Your task to perform on an android device: install app "LiveIn - Share Your Moment" Image 0: 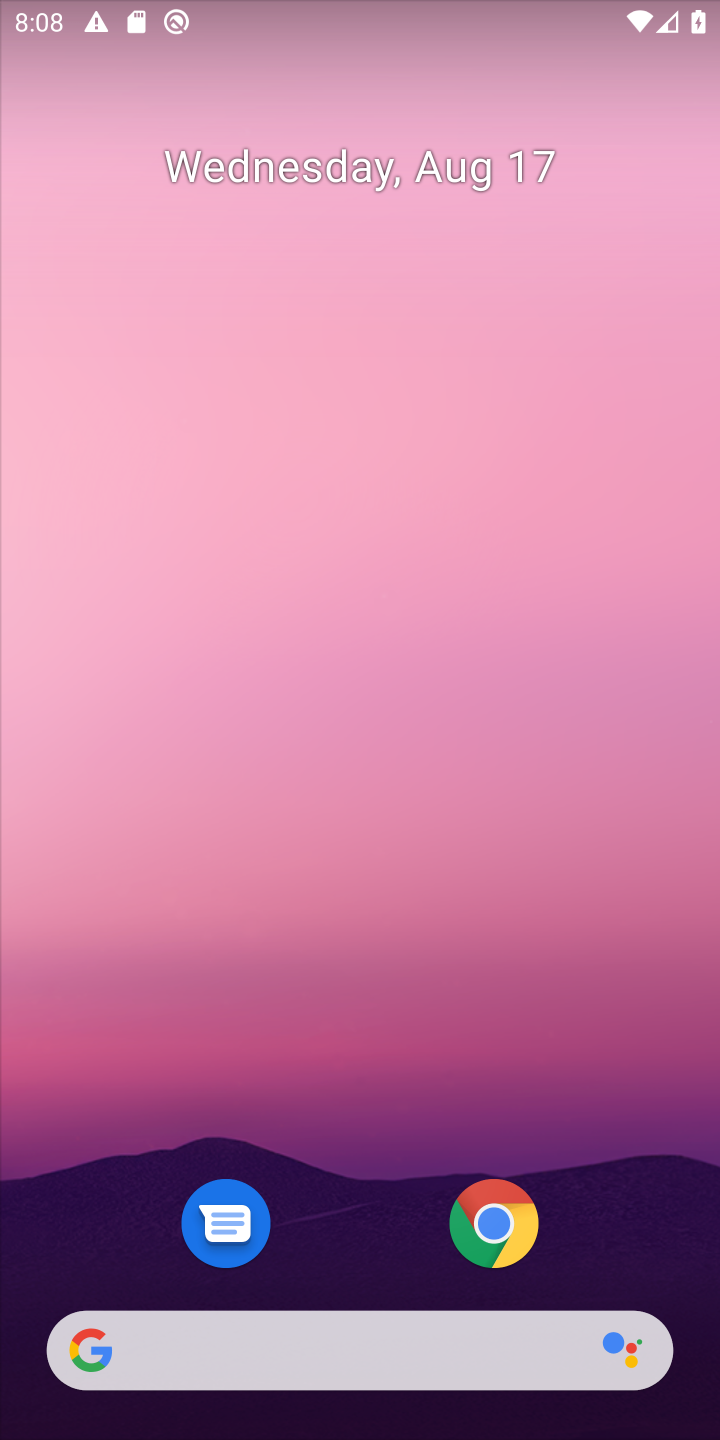
Step 0: click (312, 29)
Your task to perform on an android device: install app "LiveIn - Share Your Moment" Image 1: 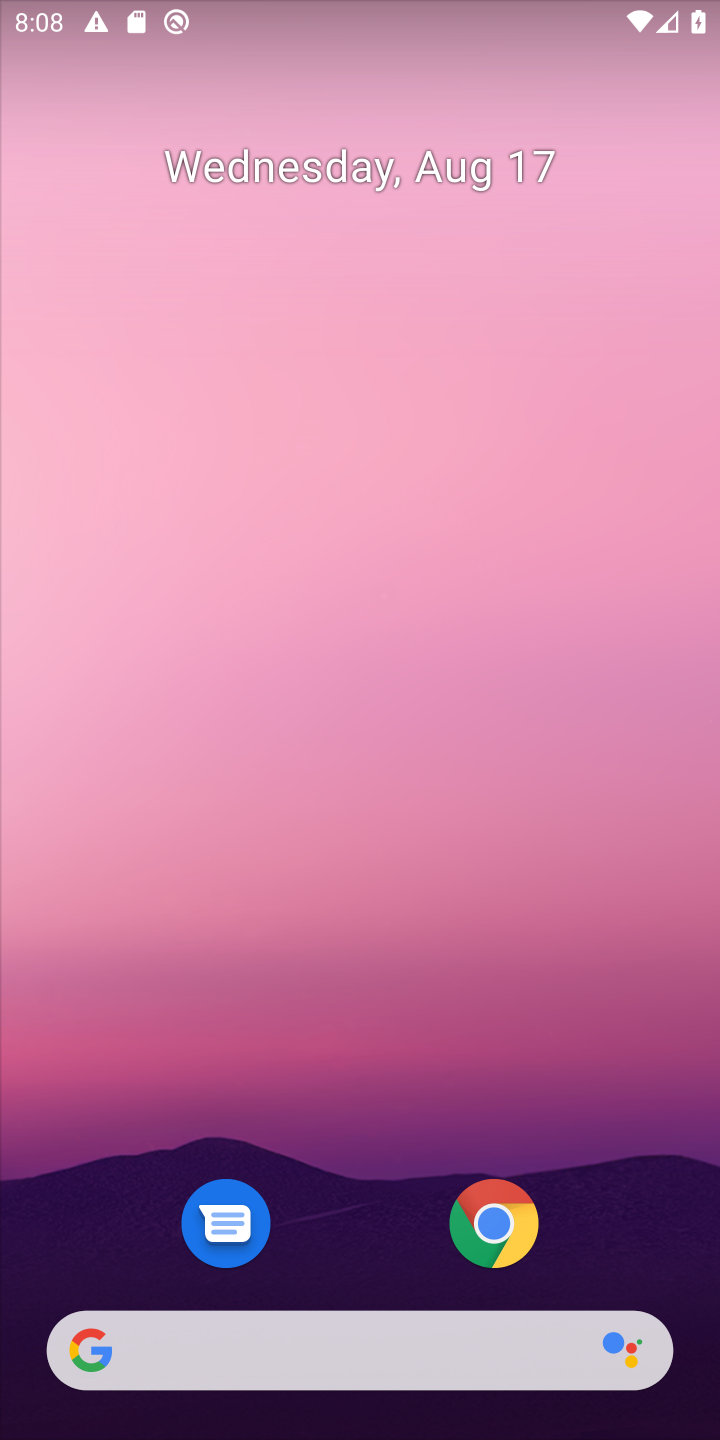
Step 1: click (366, 291)
Your task to perform on an android device: install app "LiveIn - Share Your Moment" Image 2: 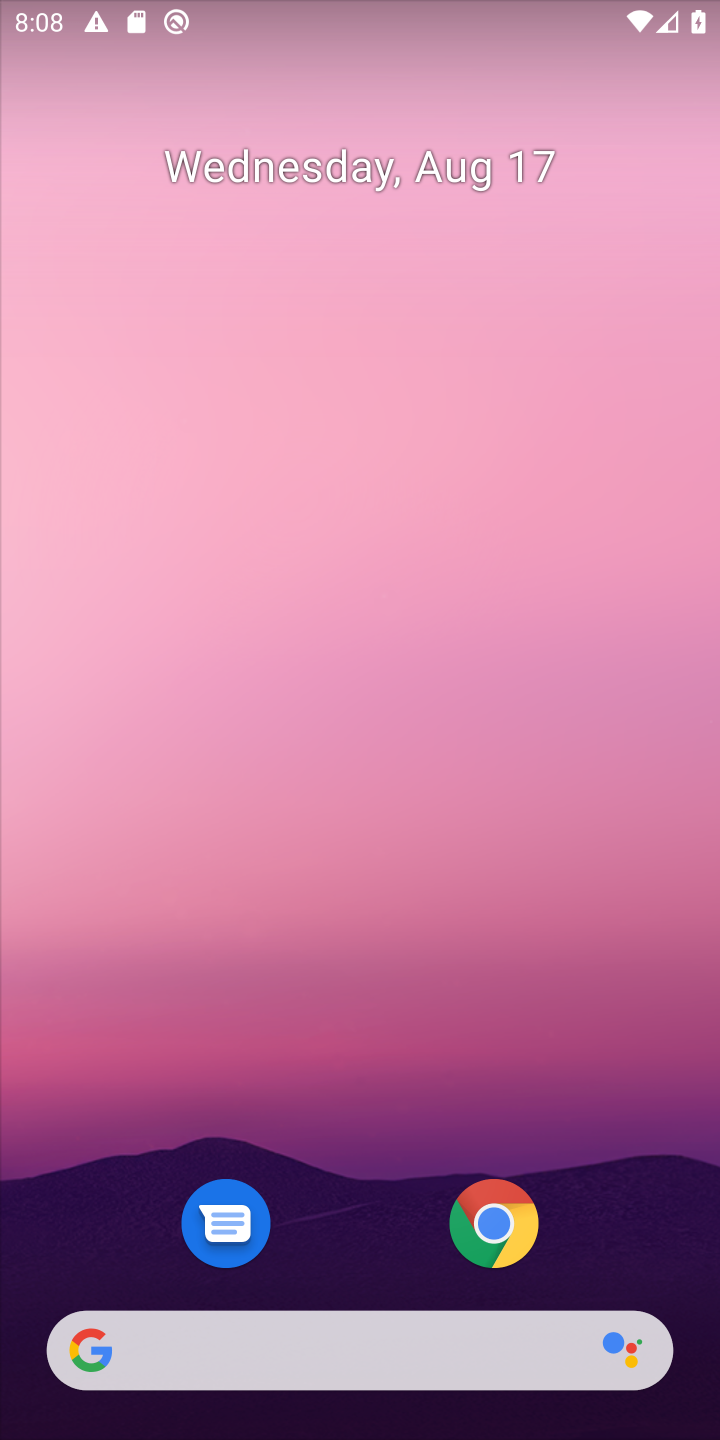
Step 2: click (310, 143)
Your task to perform on an android device: install app "LiveIn - Share Your Moment" Image 3: 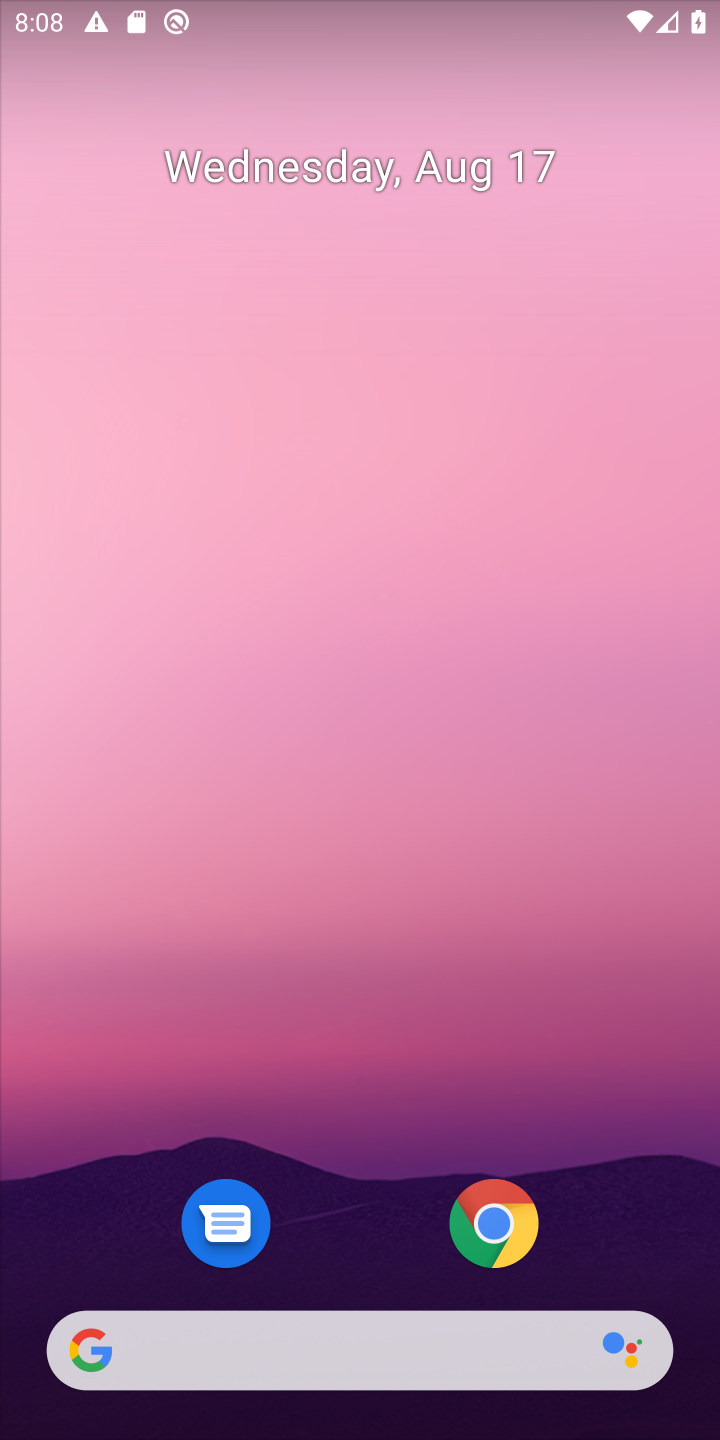
Step 3: drag from (398, 1264) to (408, 236)
Your task to perform on an android device: install app "LiveIn - Share Your Moment" Image 4: 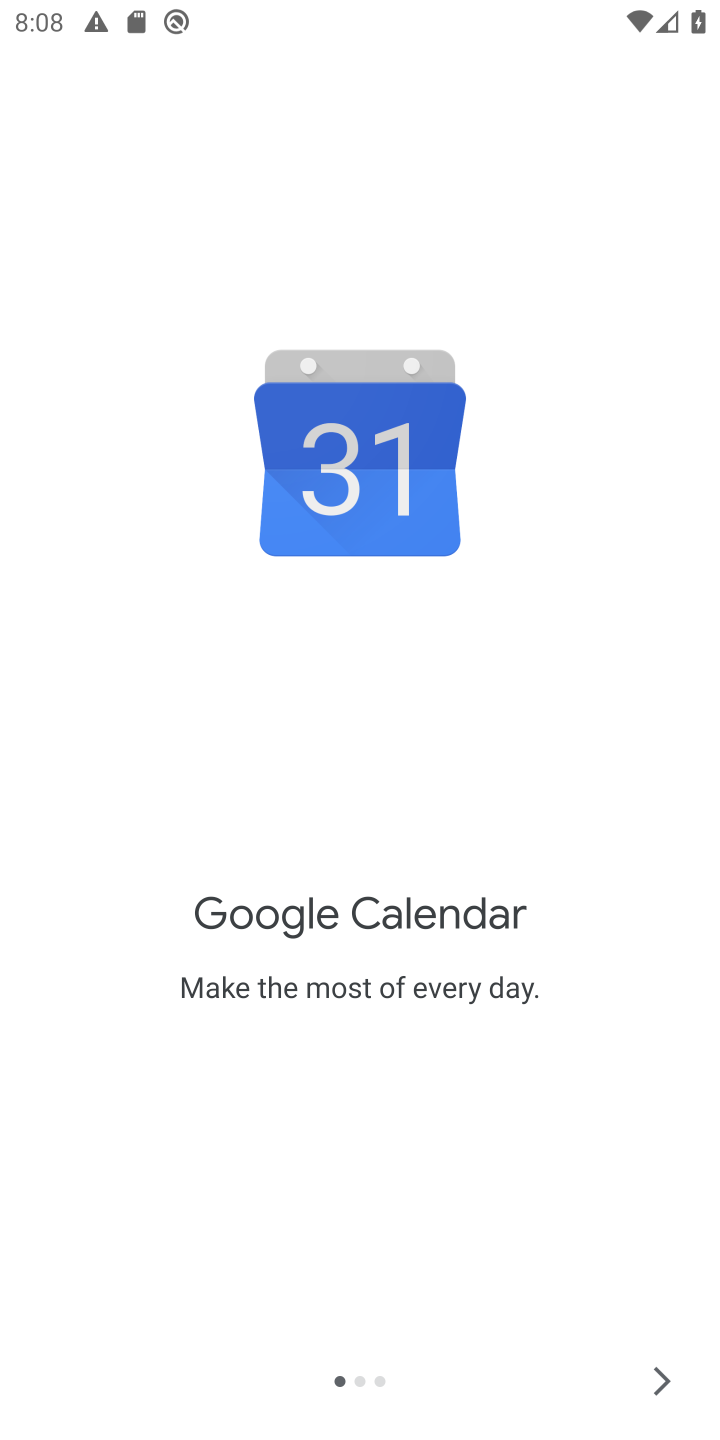
Step 4: press home button
Your task to perform on an android device: install app "LiveIn - Share Your Moment" Image 5: 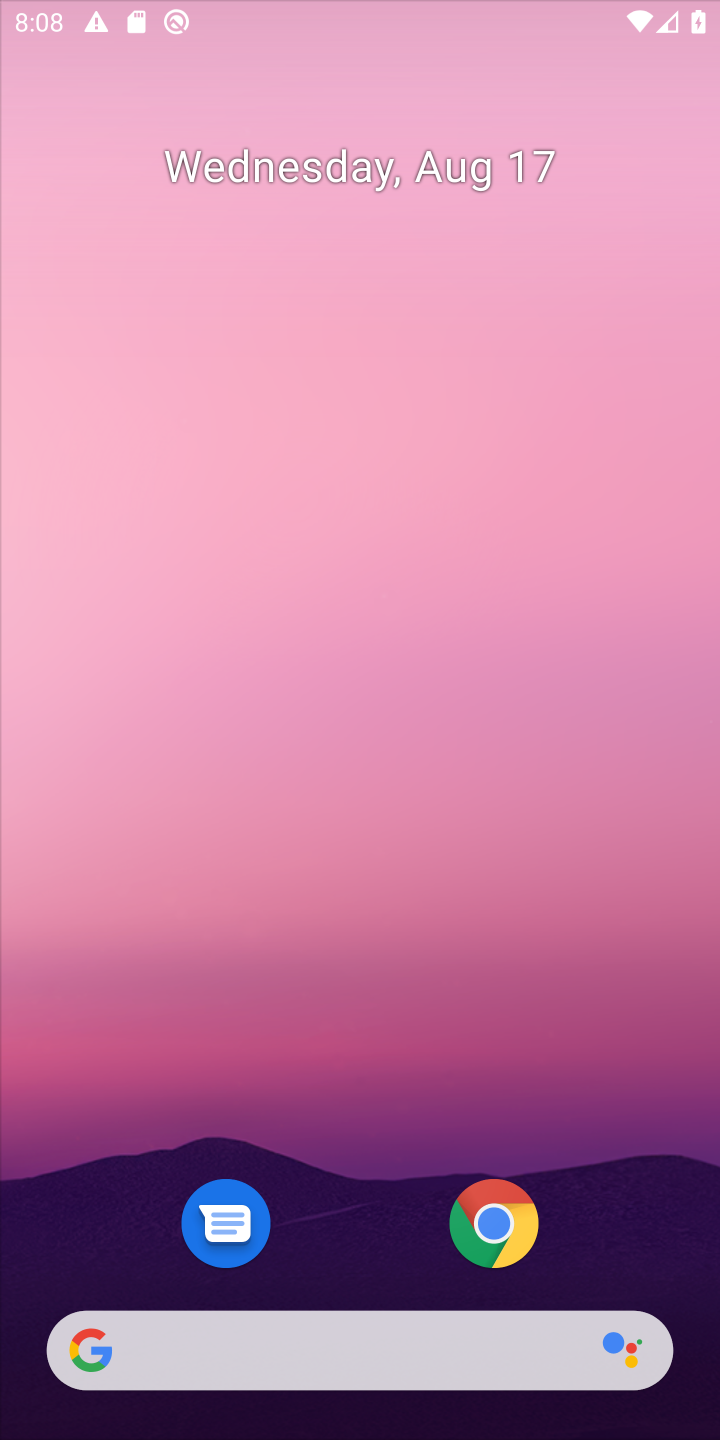
Step 5: click (287, 139)
Your task to perform on an android device: install app "LiveIn - Share Your Moment" Image 6: 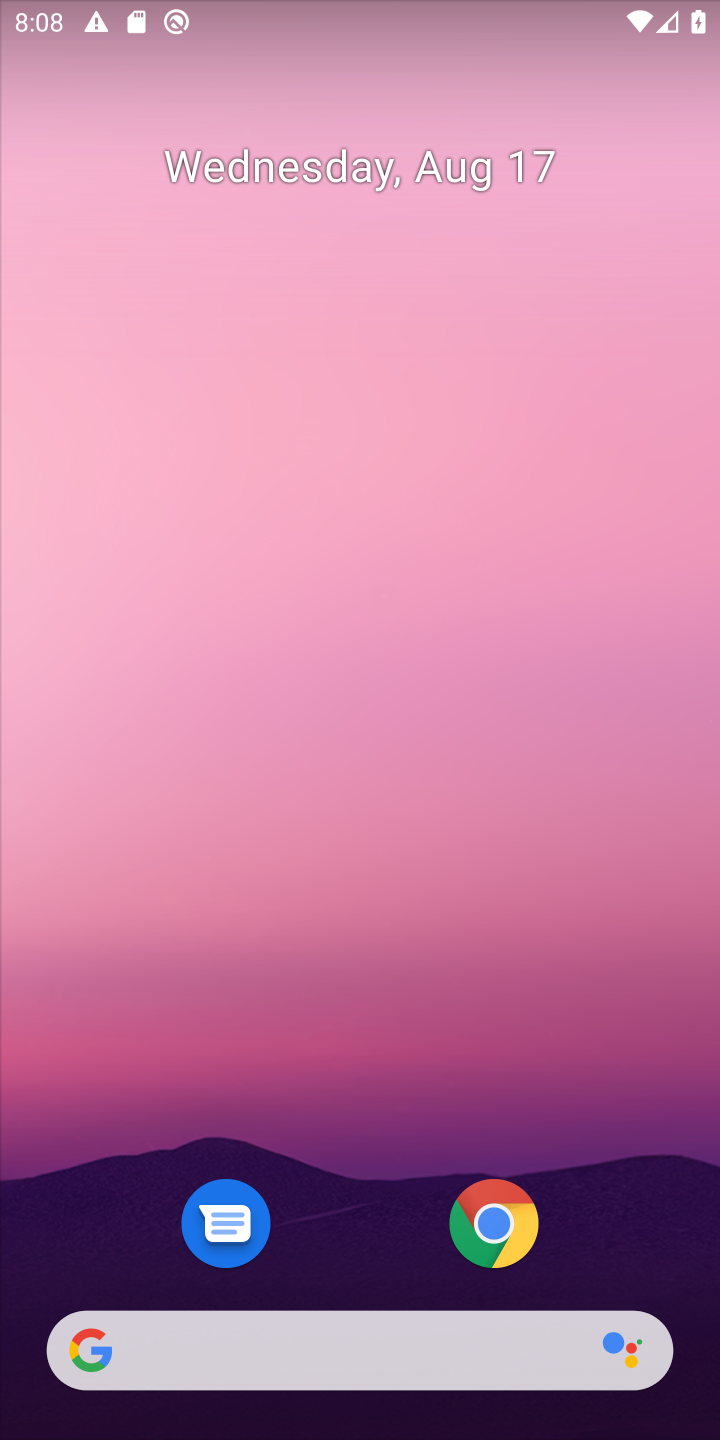
Step 6: drag from (367, 1241) to (348, 109)
Your task to perform on an android device: install app "LiveIn - Share Your Moment" Image 7: 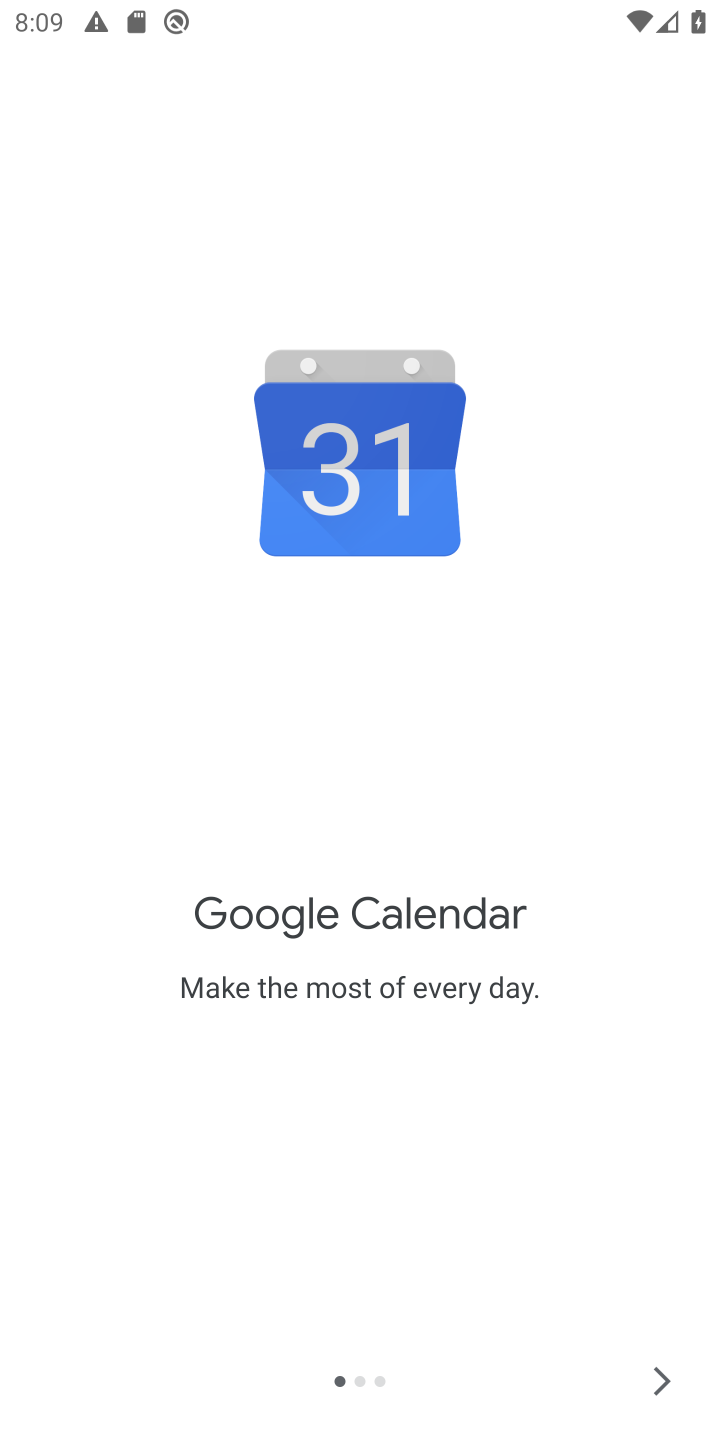
Step 7: press home button
Your task to perform on an android device: install app "LiveIn - Share Your Moment" Image 8: 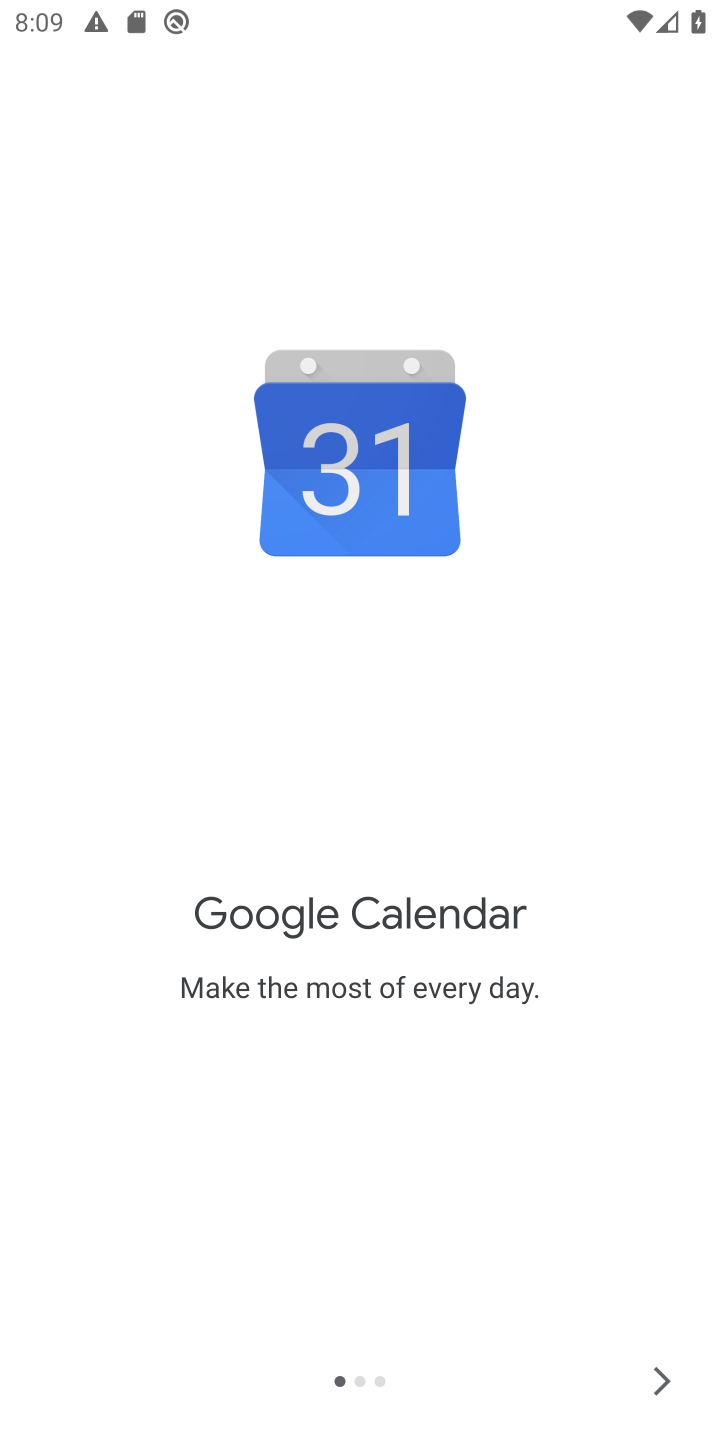
Step 8: press home button
Your task to perform on an android device: install app "LiveIn - Share Your Moment" Image 9: 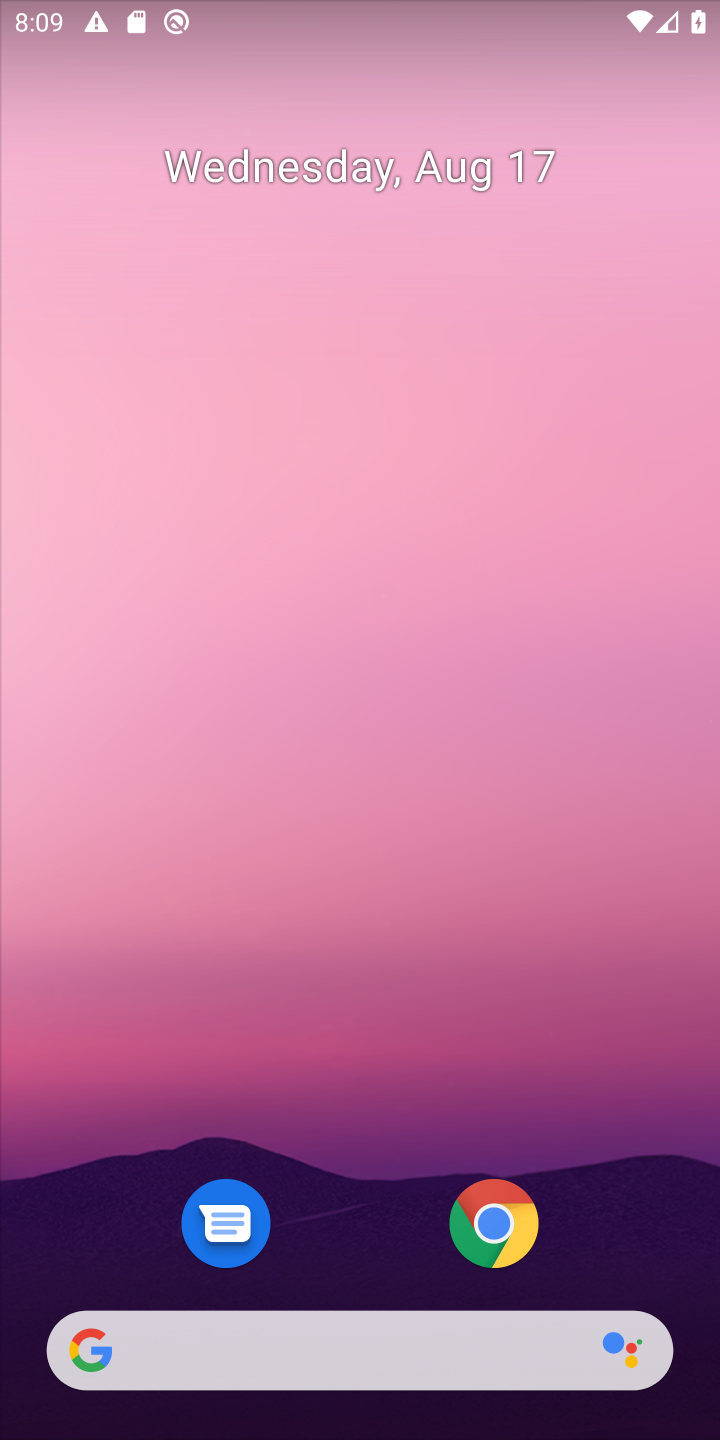
Step 9: press home button
Your task to perform on an android device: install app "LiveIn - Share Your Moment" Image 10: 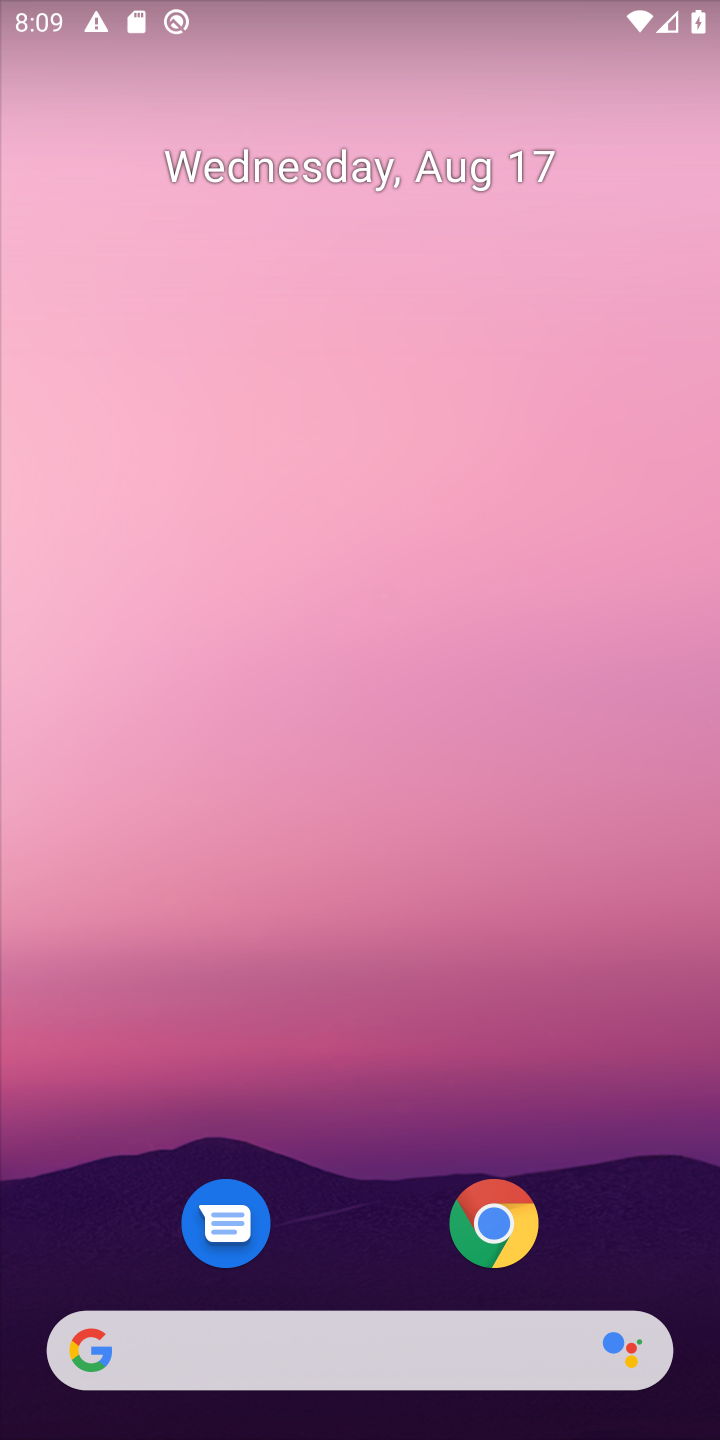
Step 10: click (375, 249)
Your task to perform on an android device: install app "LiveIn - Share Your Moment" Image 11: 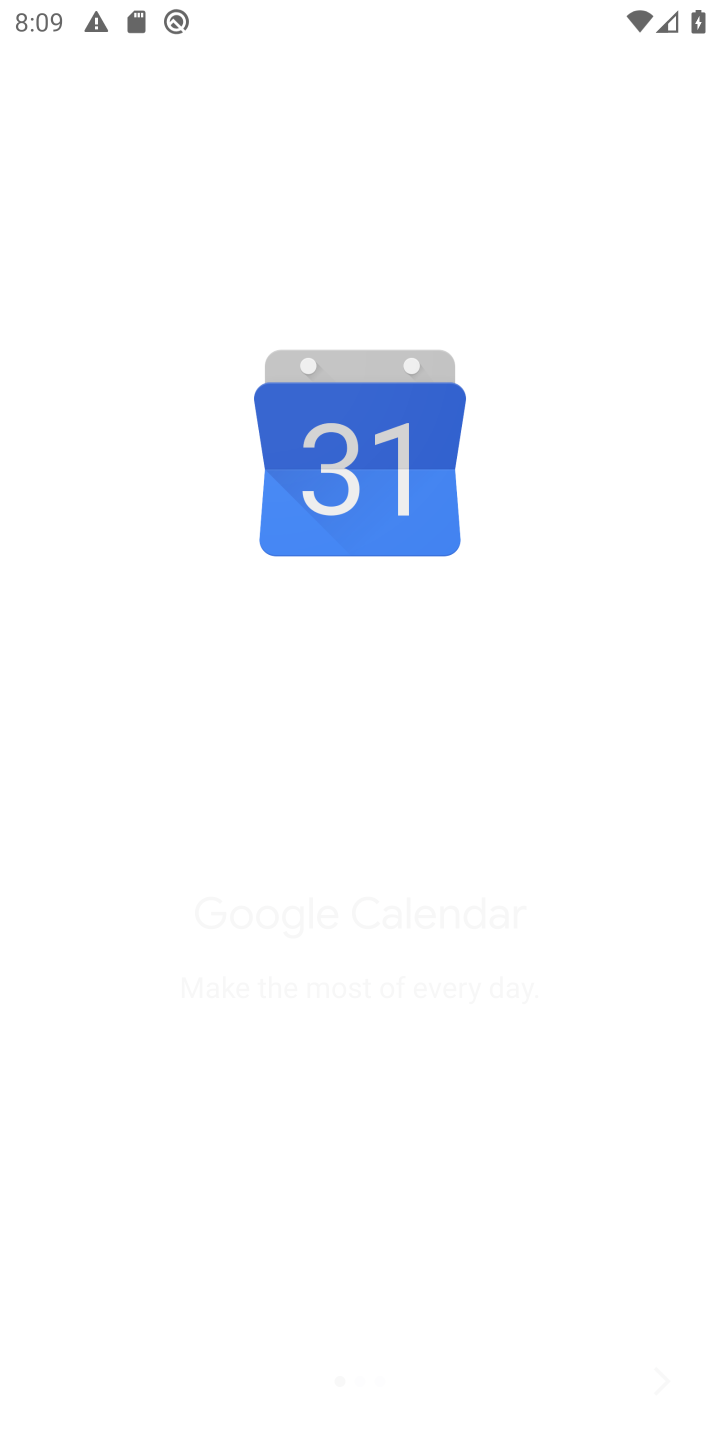
Step 11: press home button
Your task to perform on an android device: install app "LiveIn - Share Your Moment" Image 12: 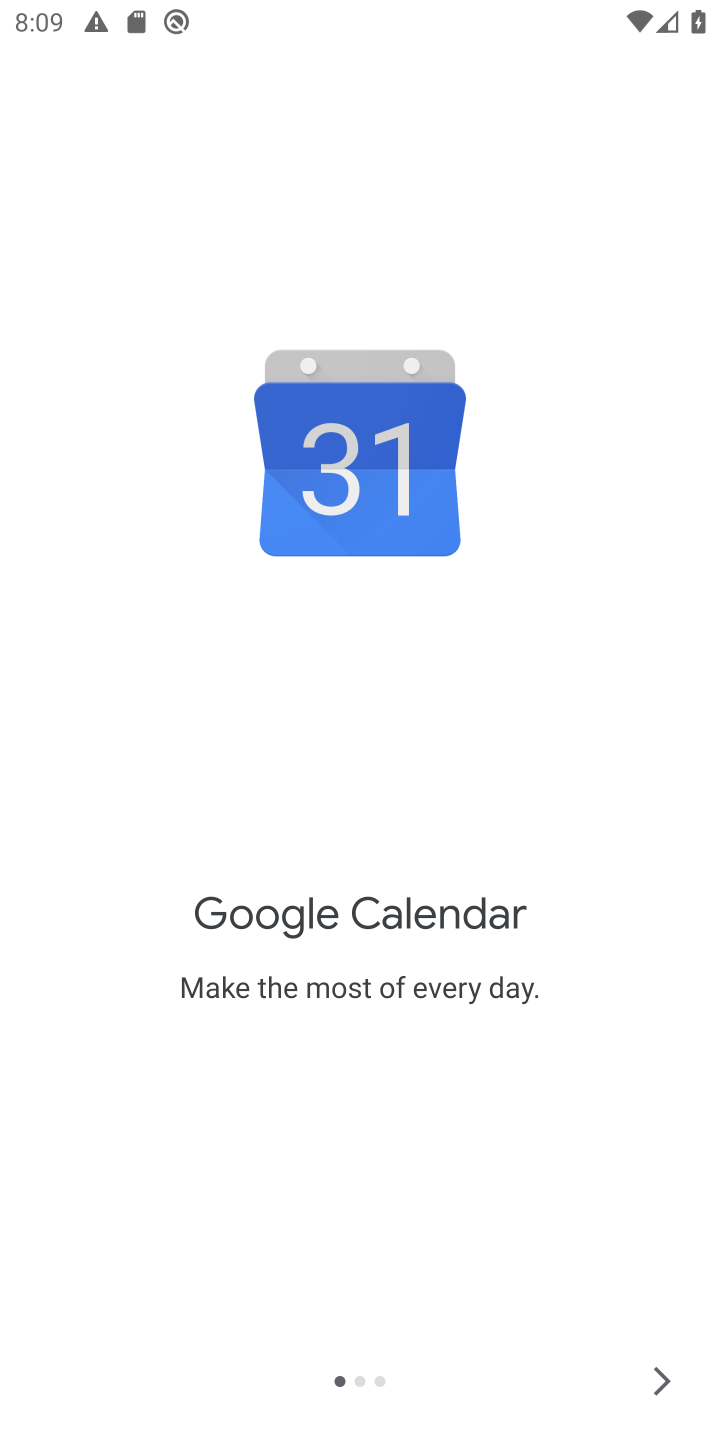
Step 12: press home button
Your task to perform on an android device: install app "LiveIn - Share Your Moment" Image 13: 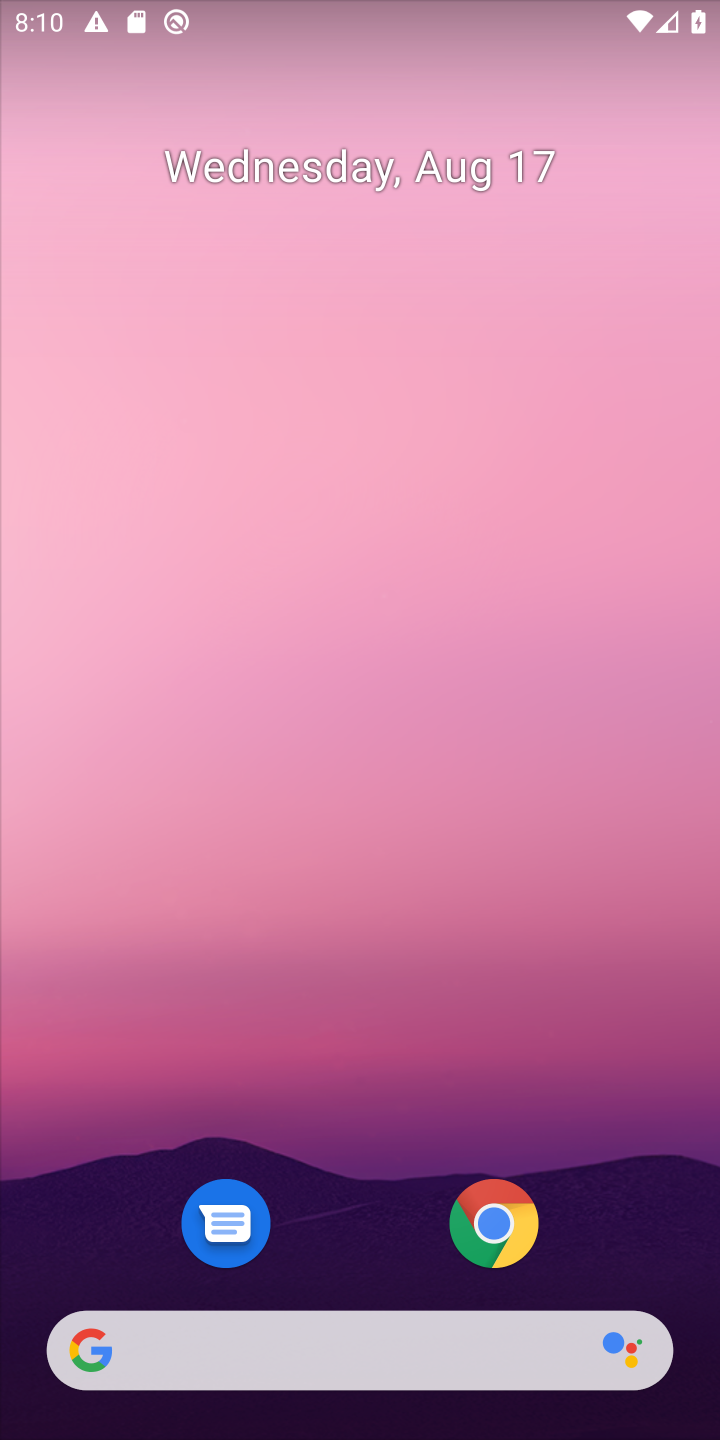
Step 13: press home button
Your task to perform on an android device: install app "LiveIn - Share Your Moment" Image 14: 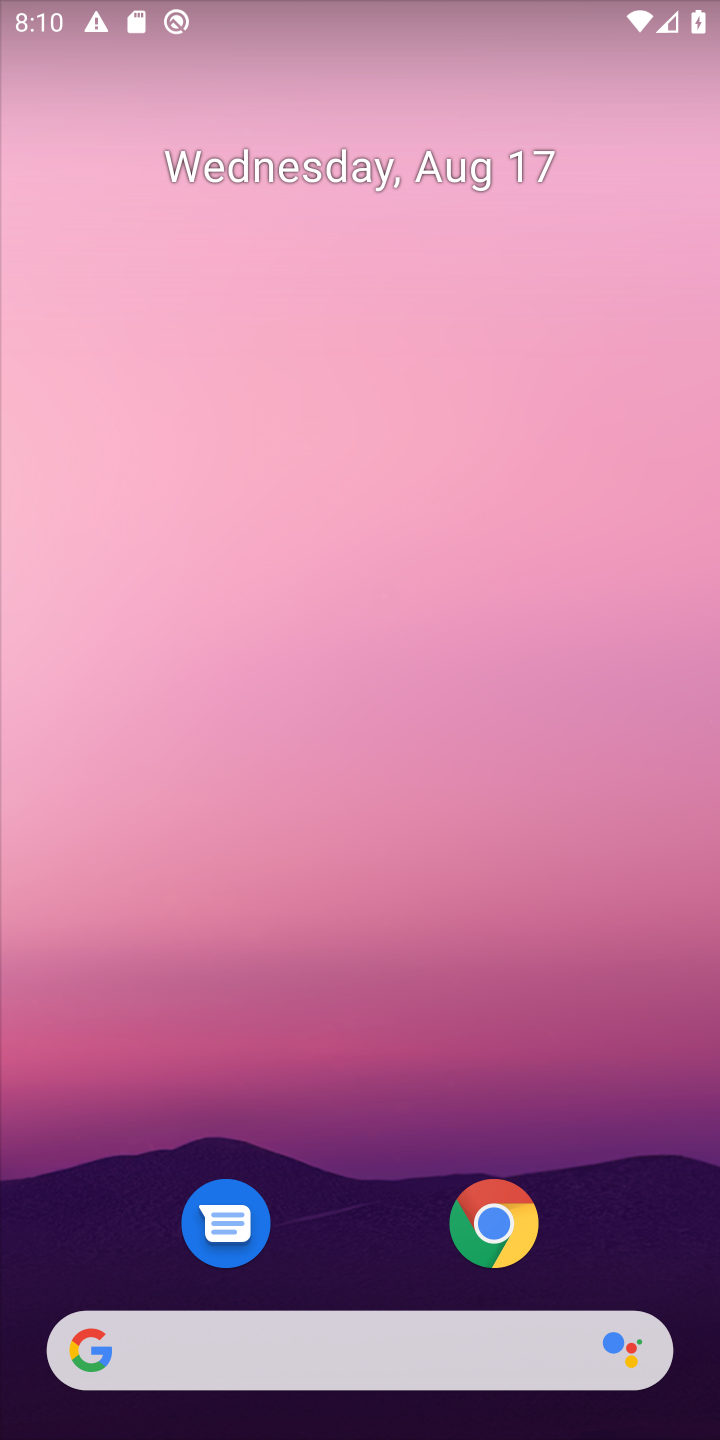
Step 14: press home button
Your task to perform on an android device: install app "LiveIn - Share Your Moment" Image 15: 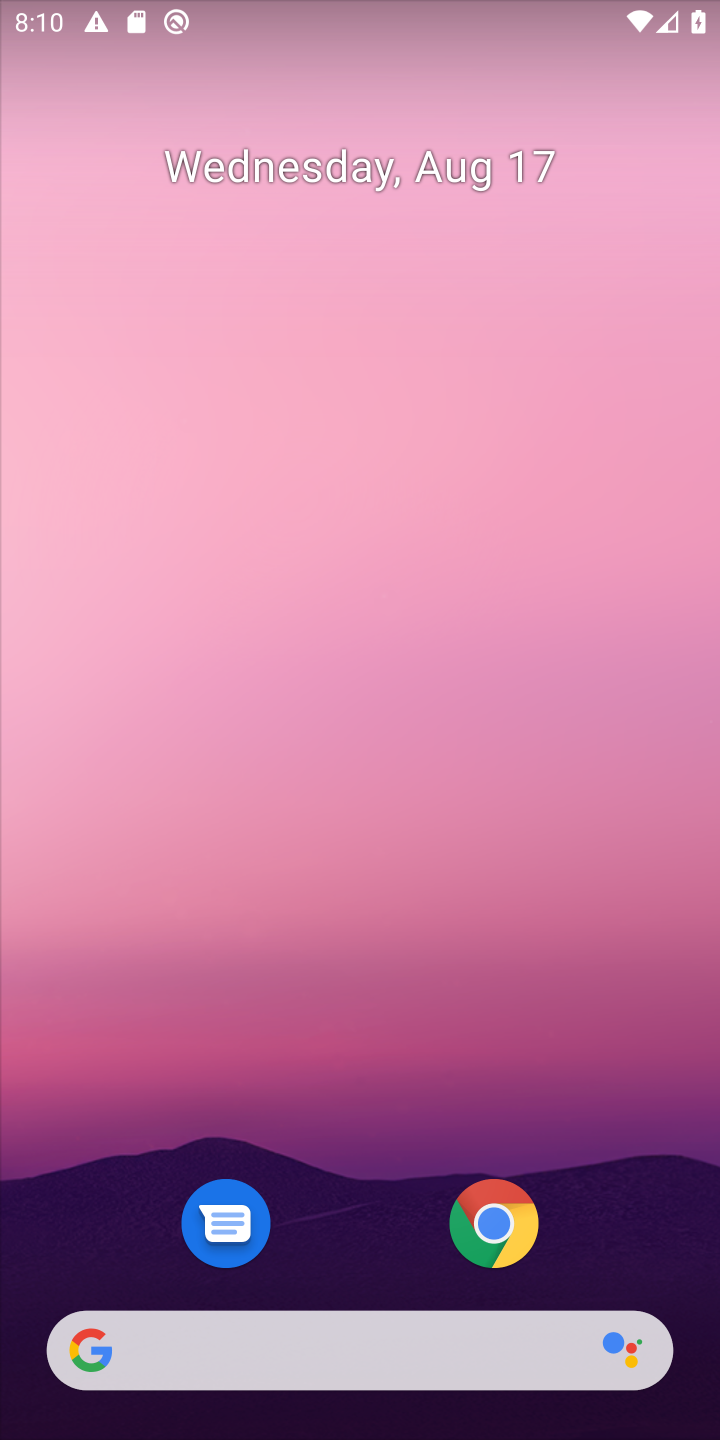
Step 15: press home button
Your task to perform on an android device: install app "LiveIn - Share Your Moment" Image 16: 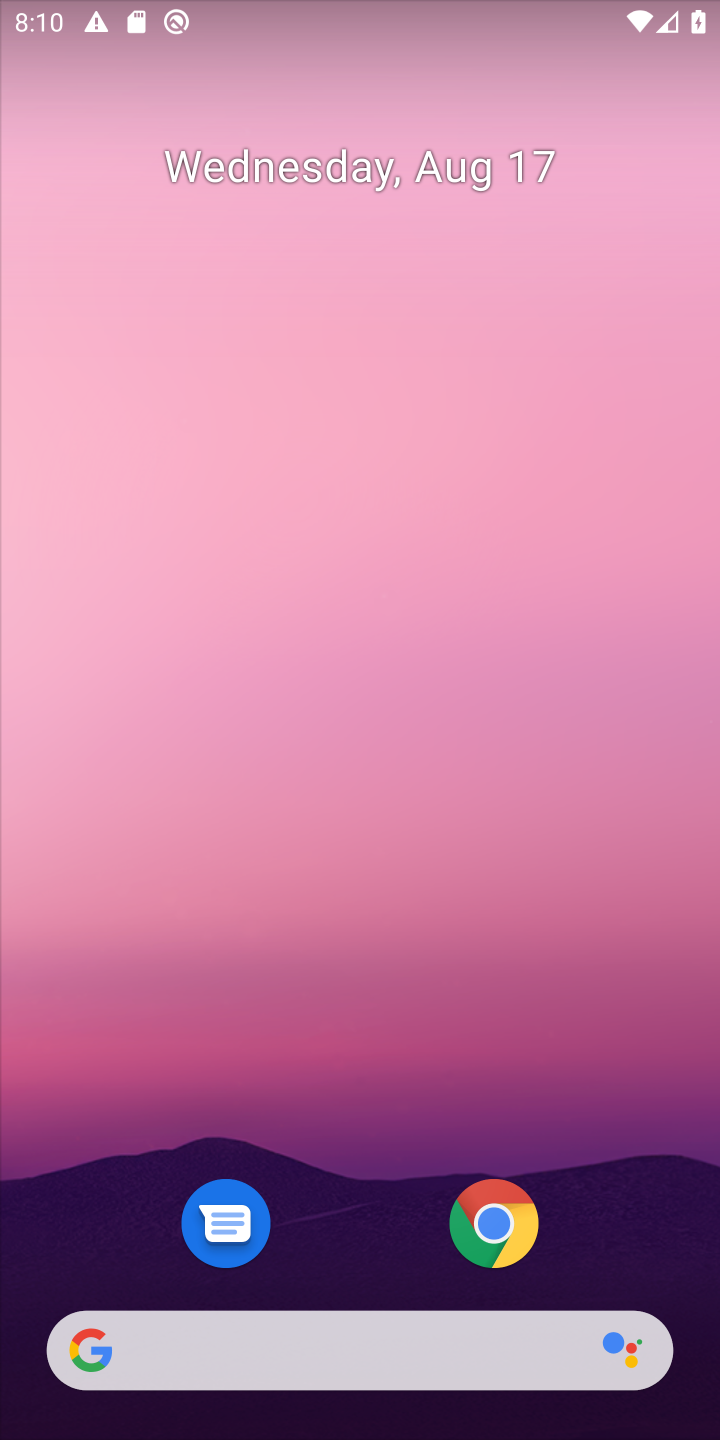
Step 16: drag from (393, 921) to (466, 62)
Your task to perform on an android device: install app "LiveIn - Share Your Moment" Image 17: 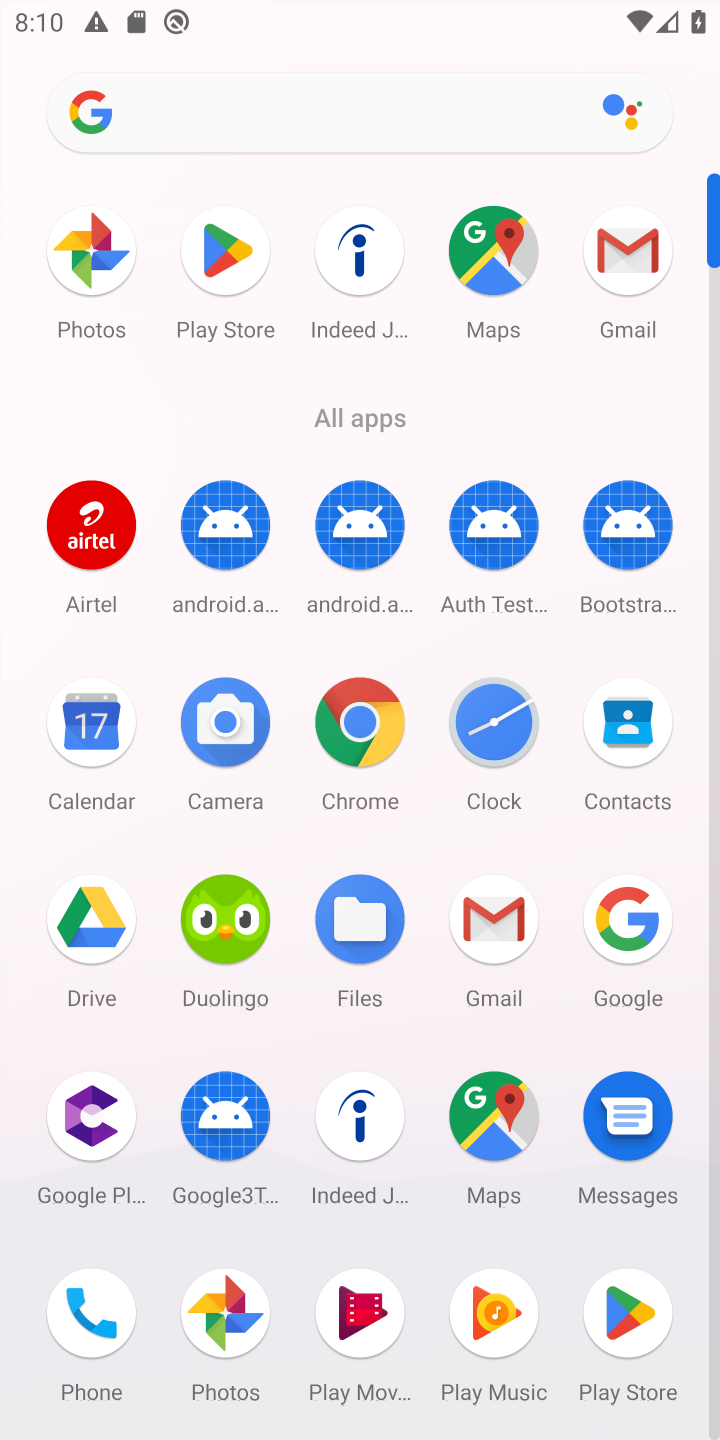
Step 17: click (630, 1309)
Your task to perform on an android device: install app "LiveIn - Share Your Moment" Image 18: 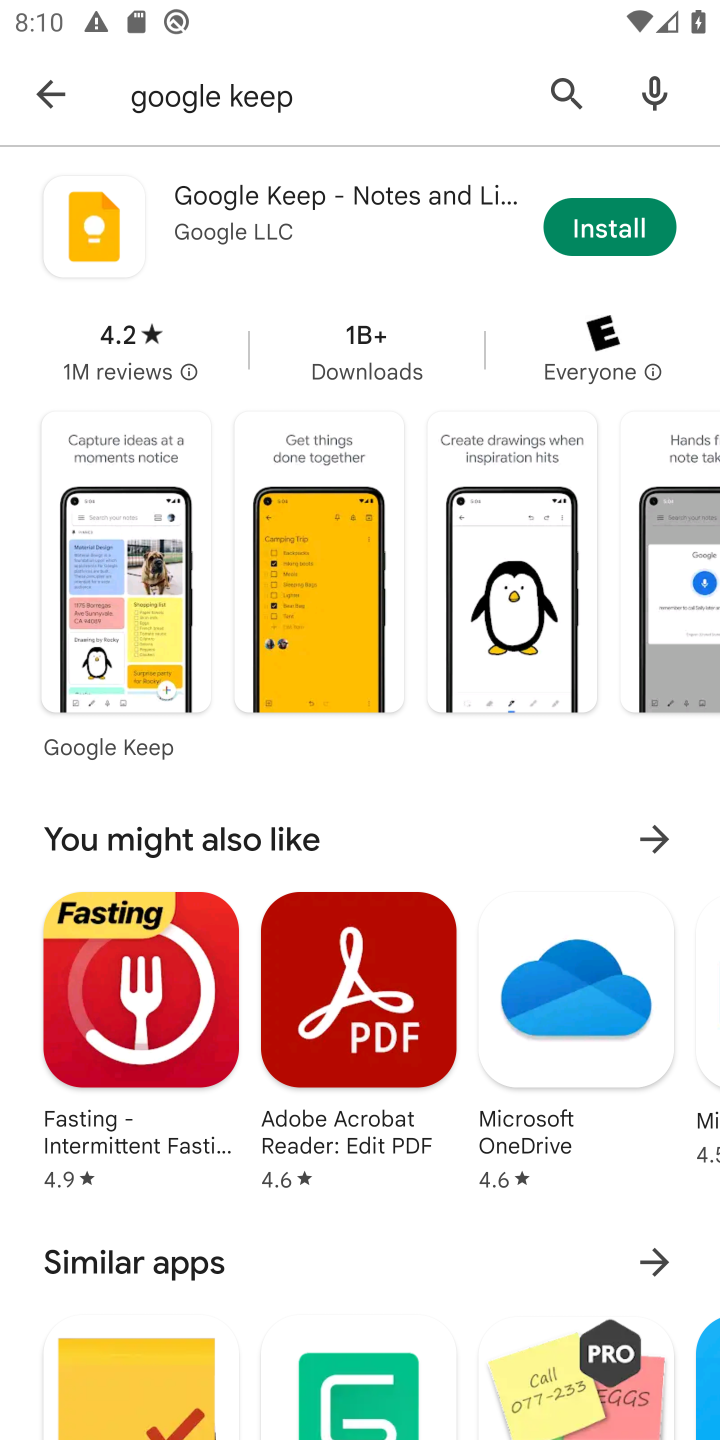
Step 18: click (557, 63)
Your task to perform on an android device: install app "LiveIn - Share Your Moment" Image 19: 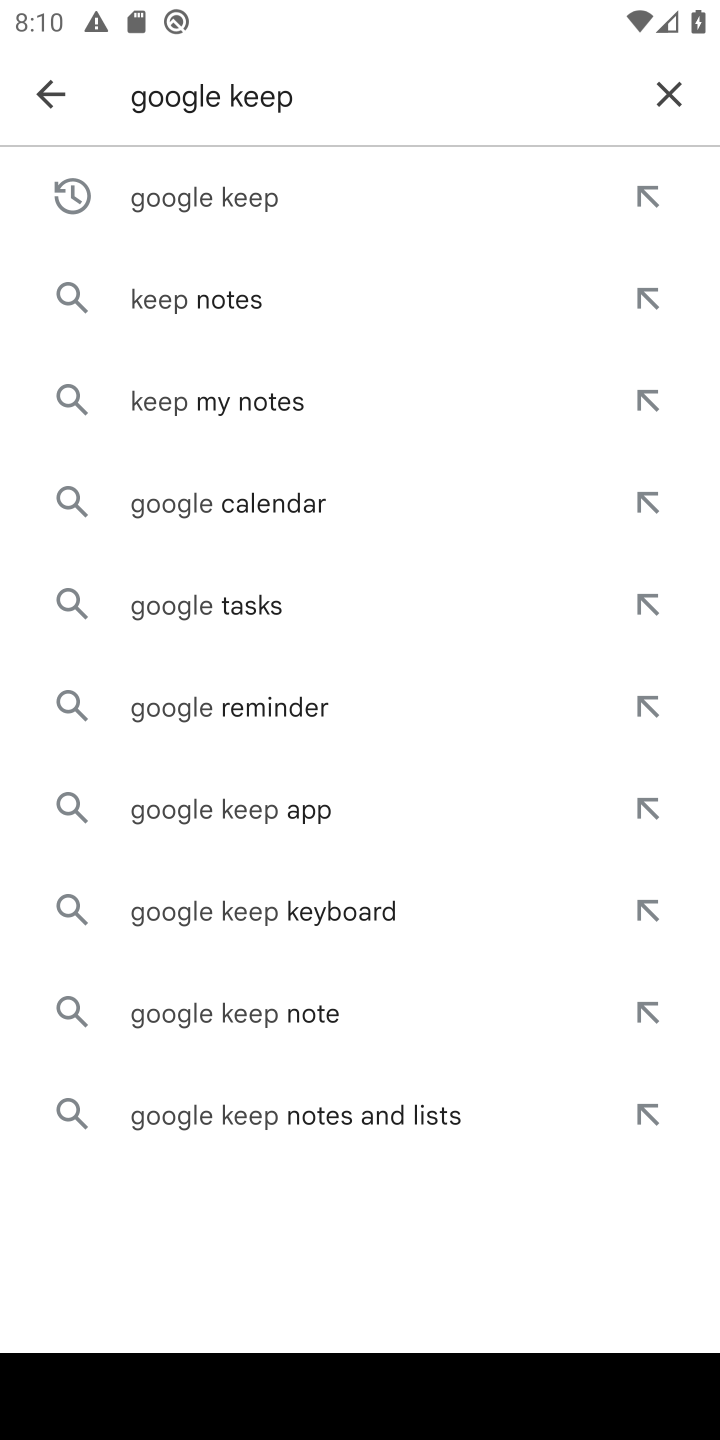
Step 19: click (680, 92)
Your task to perform on an android device: install app "LiveIn - Share Your Moment" Image 20: 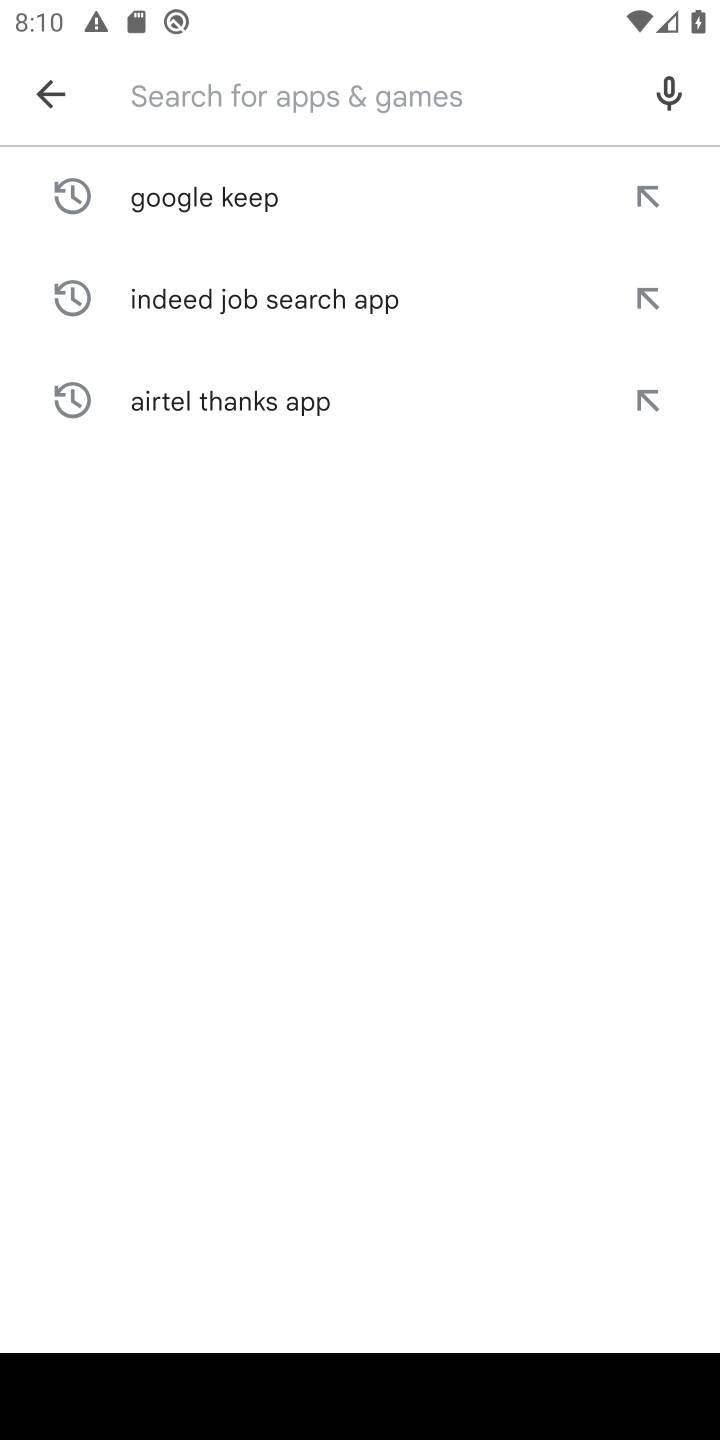
Step 20: type "LiveIn - Share Your Moment"
Your task to perform on an android device: install app "LiveIn - Share Your Moment" Image 21: 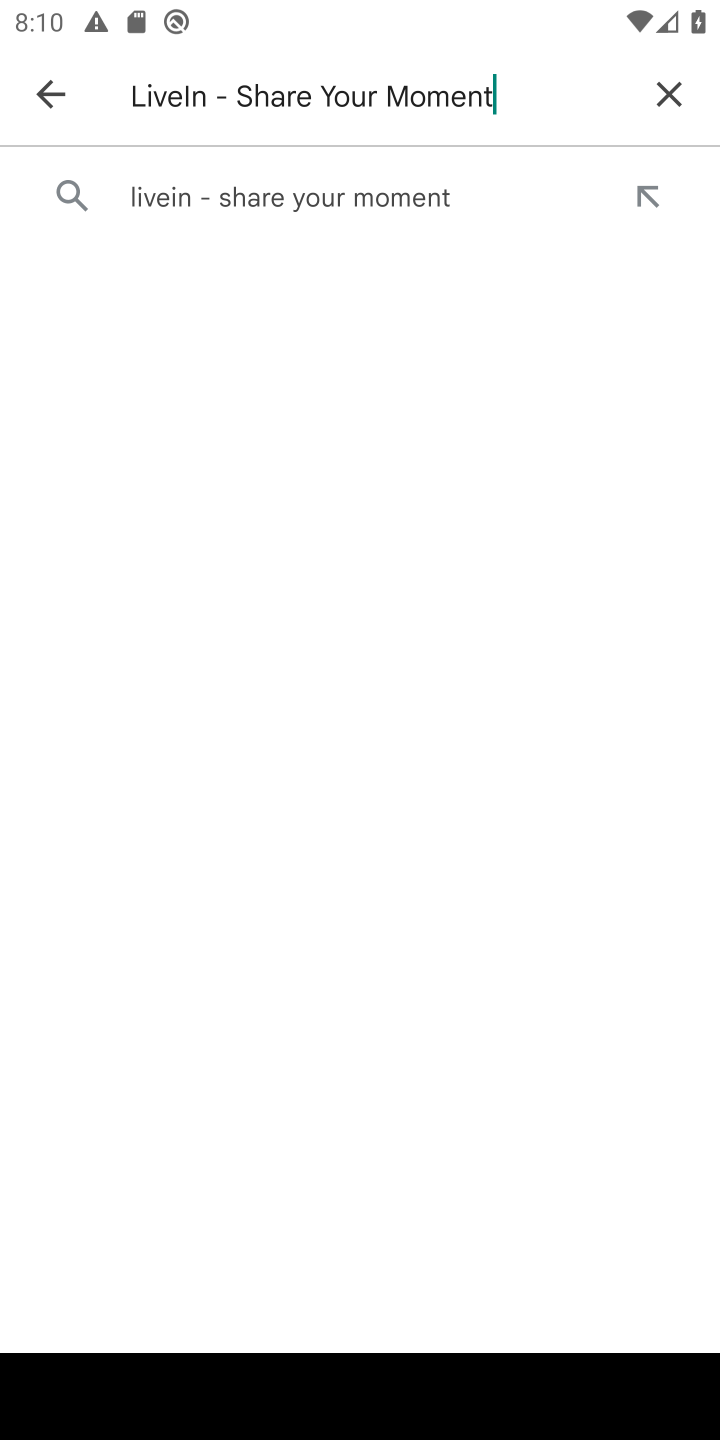
Step 21: click (183, 197)
Your task to perform on an android device: install app "LiveIn - Share Your Moment" Image 22: 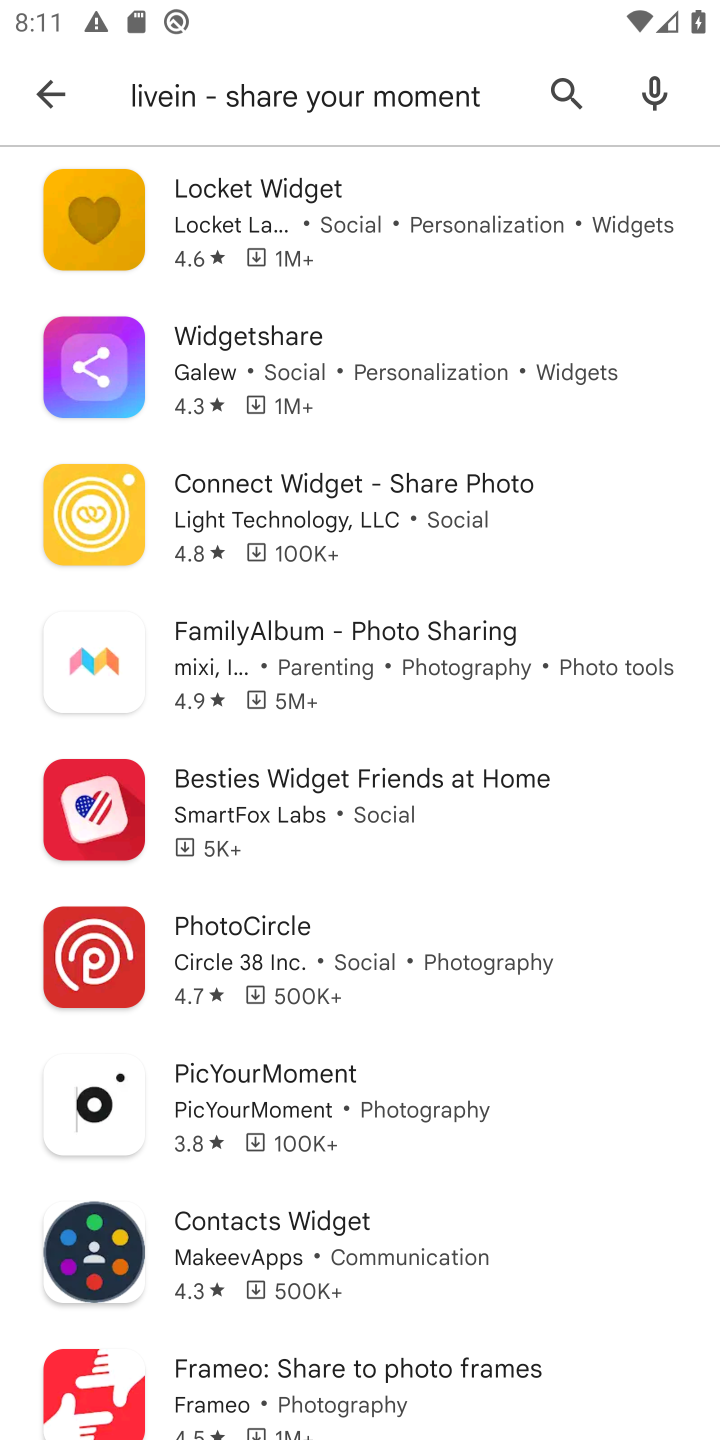
Step 22: task complete